Your task to perform on an android device: open a new tab in the chrome app Image 0: 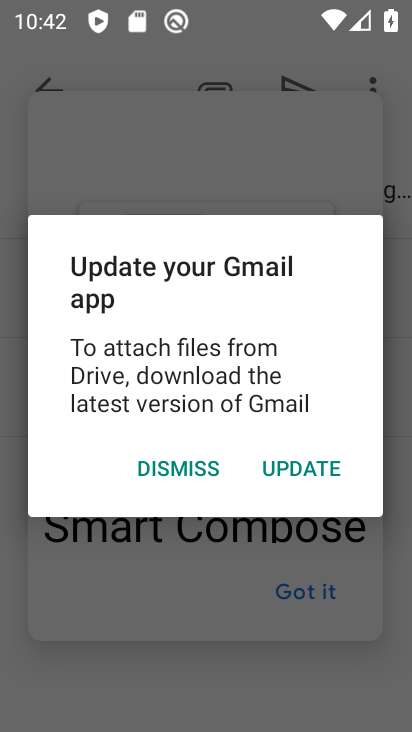
Step 0: press home button
Your task to perform on an android device: open a new tab in the chrome app Image 1: 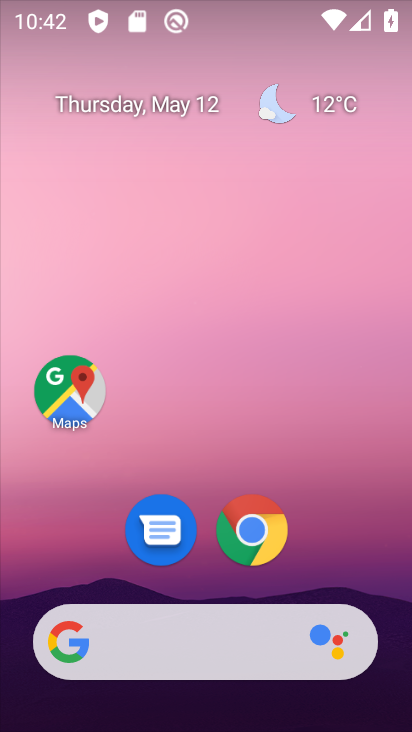
Step 1: click (253, 547)
Your task to perform on an android device: open a new tab in the chrome app Image 2: 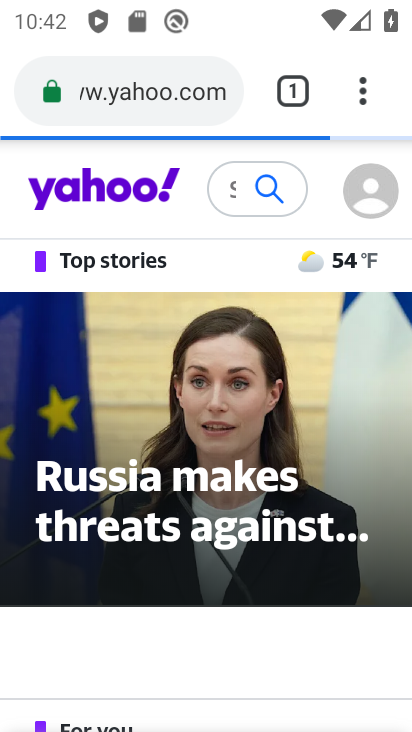
Step 2: task complete